Your task to perform on an android device: open a new tab in the chrome app Image 0: 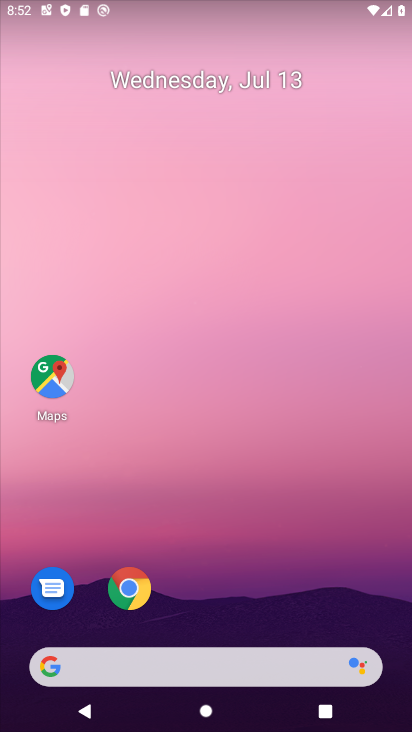
Step 0: drag from (249, 595) to (252, 189)
Your task to perform on an android device: open a new tab in the chrome app Image 1: 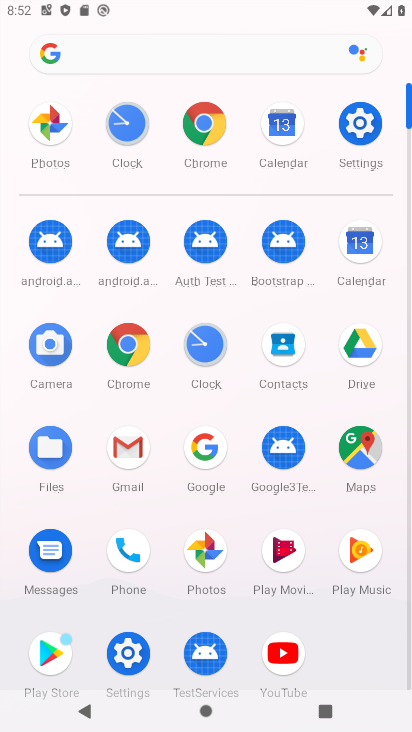
Step 1: click (190, 120)
Your task to perform on an android device: open a new tab in the chrome app Image 2: 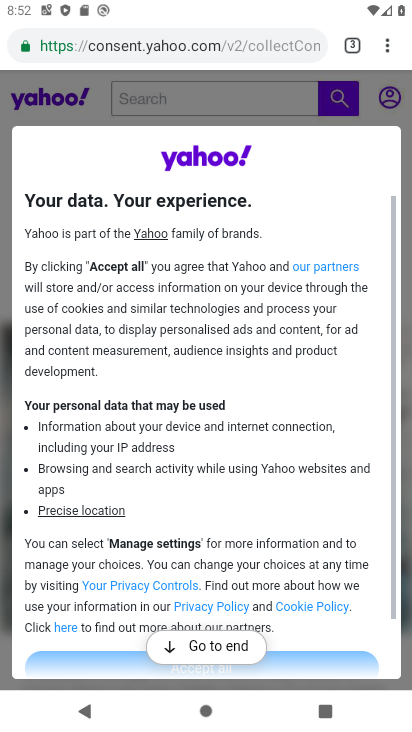
Step 2: click (190, 120)
Your task to perform on an android device: open a new tab in the chrome app Image 3: 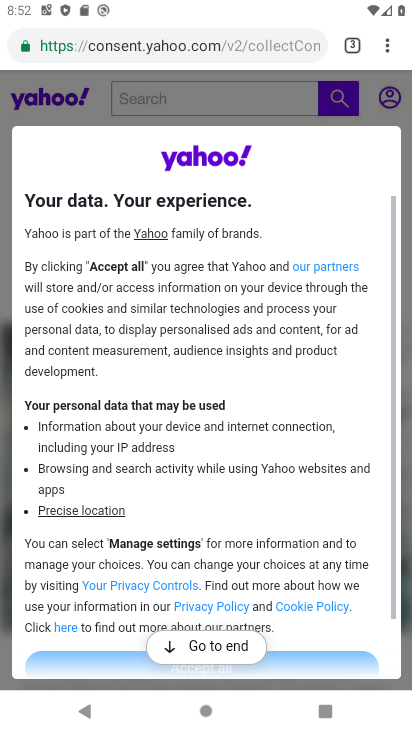
Step 3: click (389, 40)
Your task to perform on an android device: open a new tab in the chrome app Image 4: 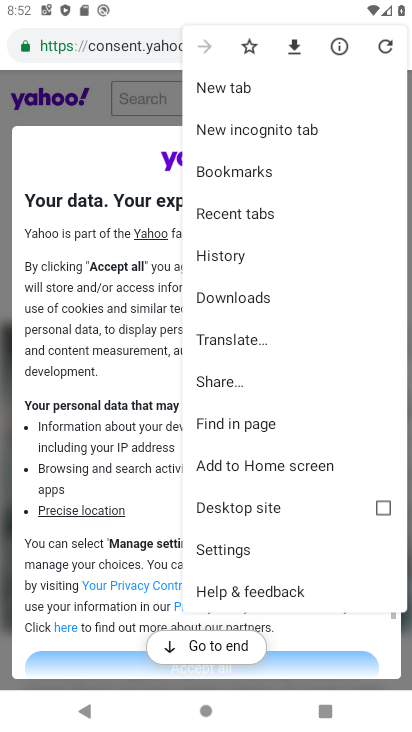
Step 4: click (231, 76)
Your task to perform on an android device: open a new tab in the chrome app Image 5: 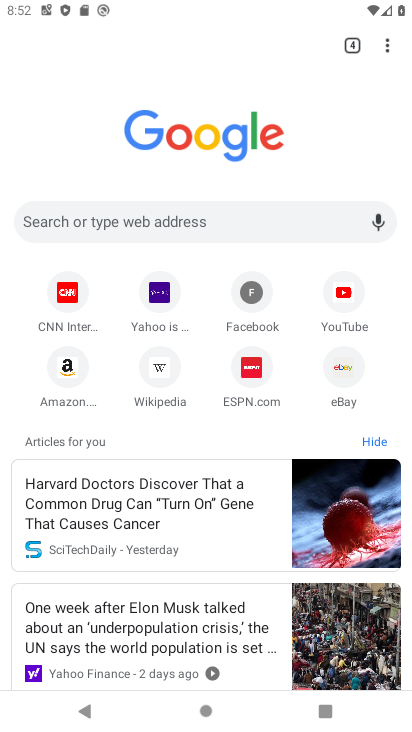
Step 5: task complete